Your task to perform on an android device: Is it going to rain tomorrow? Image 0: 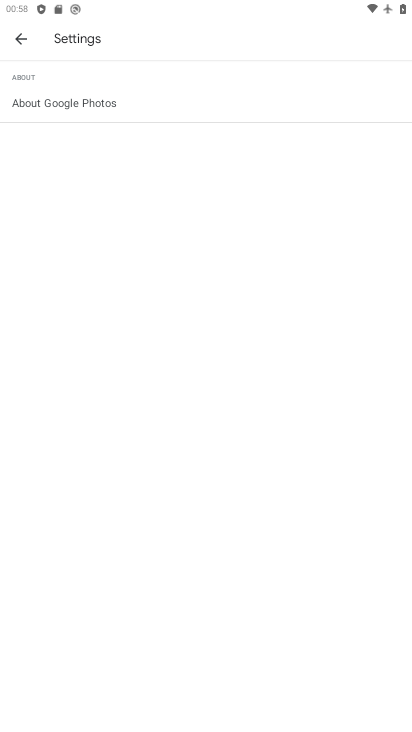
Step 0: press home button
Your task to perform on an android device: Is it going to rain tomorrow? Image 1: 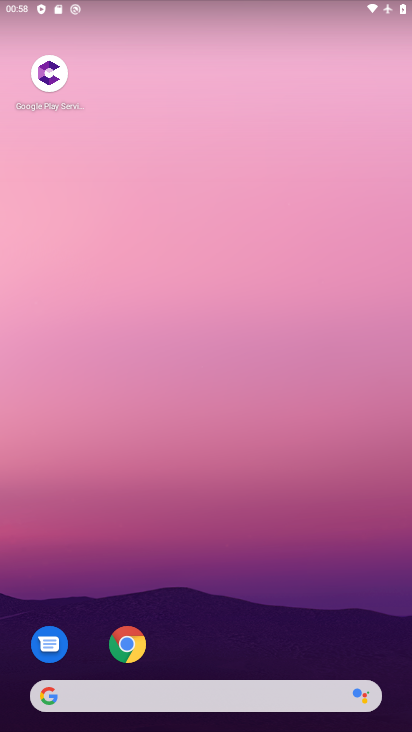
Step 1: click (235, 599)
Your task to perform on an android device: Is it going to rain tomorrow? Image 2: 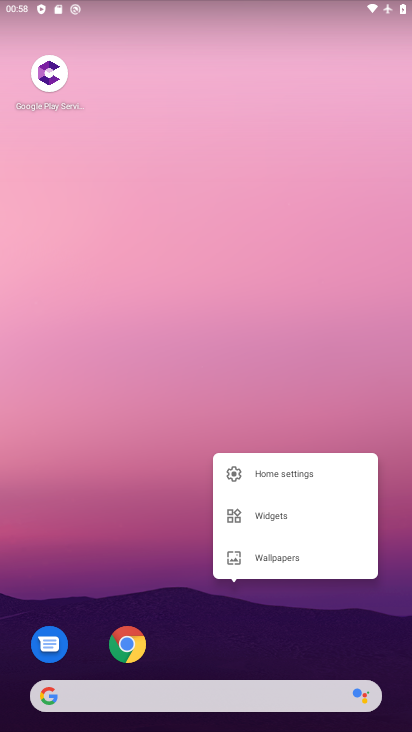
Step 2: click (194, 703)
Your task to perform on an android device: Is it going to rain tomorrow? Image 3: 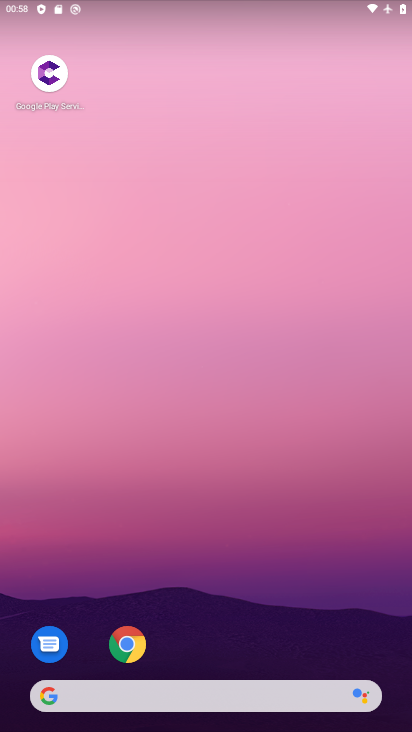
Step 3: click (189, 699)
Your task to perform on an android device: Is it going to rain tomorrow? Image 4: 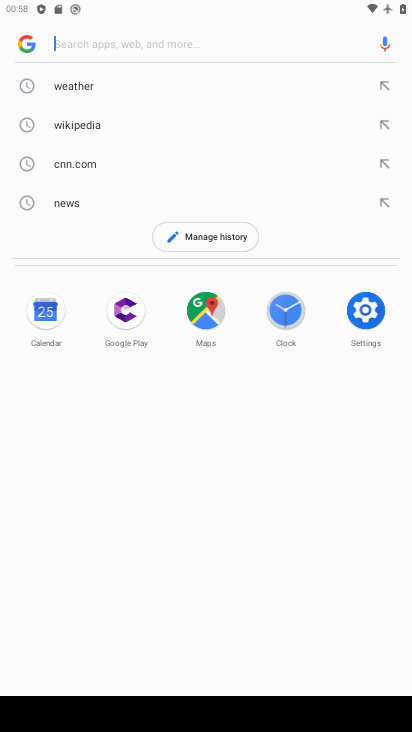
Step 4: type "rain "
Your task to perform on an android device: Is it going to rain tomorrow? Image 5: 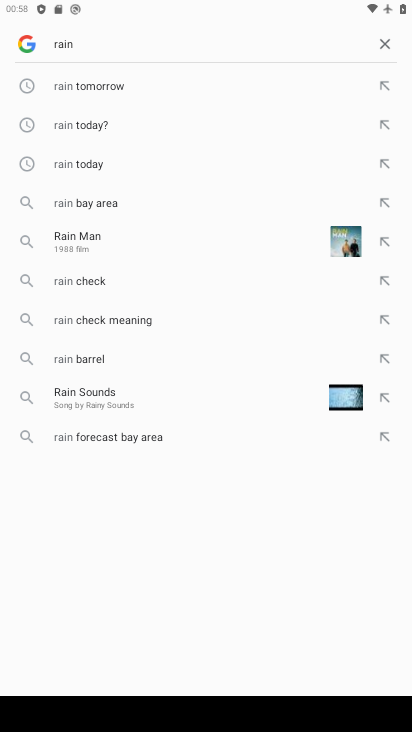
Step 5: click (97, 73)
Your task to perform on an android device: Is it going to rain tomorrow? Image 6: 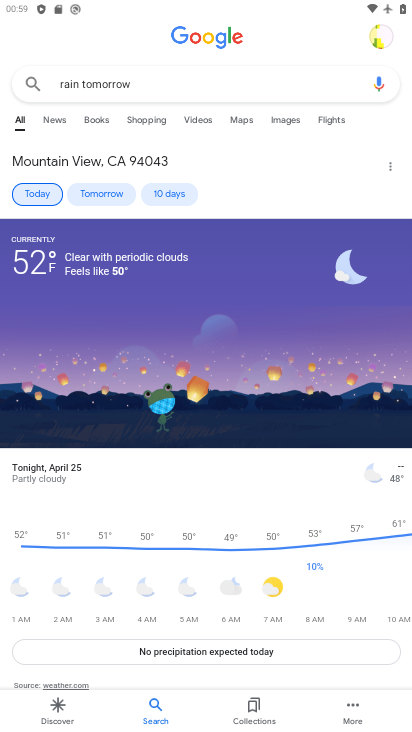
Step 6: task complete